Your task to perform on an android device: change notification settings in the gmail app Image 0: 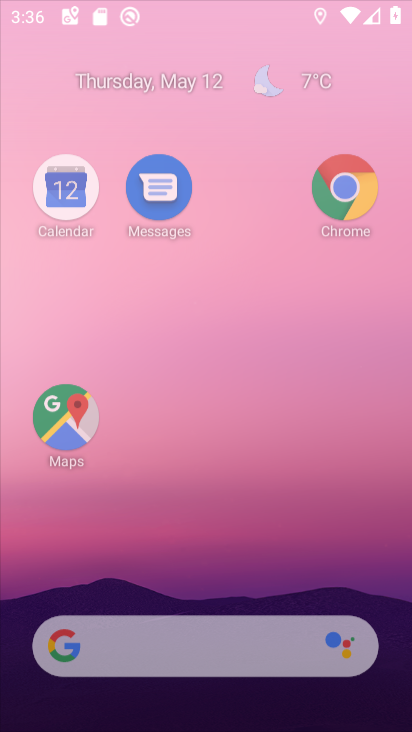
Step 0: click (167, 268)
Your task to perform on an android device: change notification settings in the gmail app Image 1: 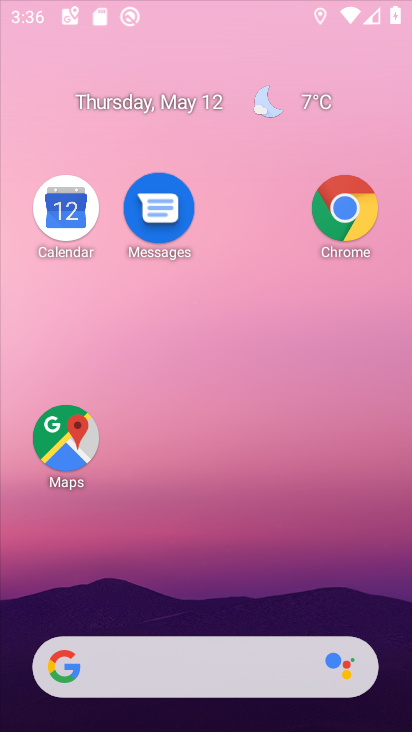
Step 1: drag from (160, 573) to (185, 109)
Your task to perform on an android device: change notification settings in the gmail app Image 2: 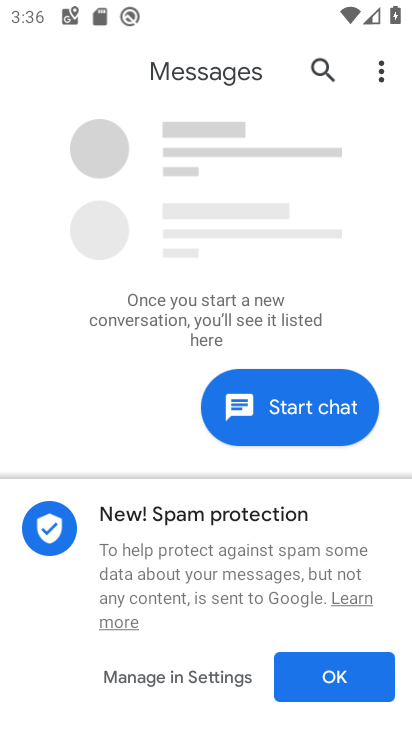
Step 2: click (328, 690)
Your task to perform on an android device: change notification settings in the gmail app Image 3: 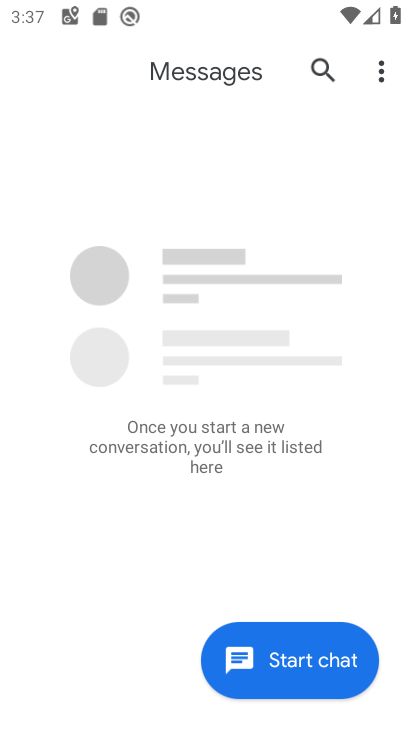
Step 3: drag from (247, 599) to (250, 130)
Your task to perform on an android device: change notification settings in the gmail app Image 4: 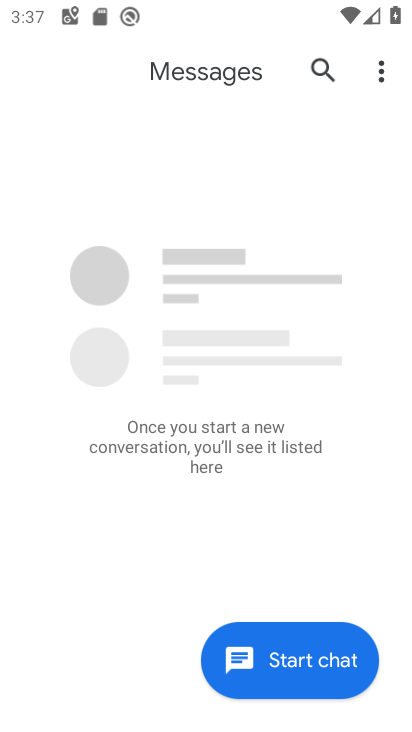
Step 4: press home button
Your task to perform on an android device: change notification settings in the gmail app Image 5: 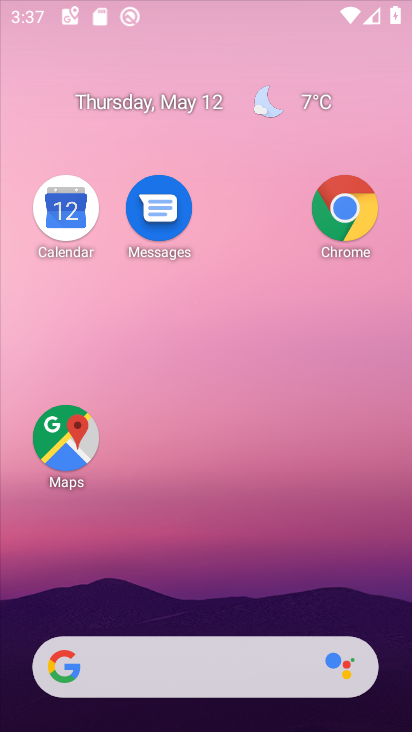
Step 5: drag from (196, 601) to (303, 167)
Your task to perform on an android device: change notification settings in the gmail app Image 6: 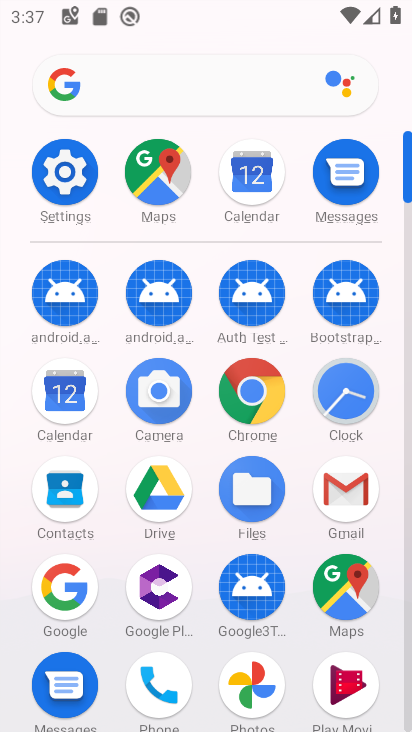
Step 6: click (342, 504)
Your task to perform on an android device: change notification settings in the gmail app Image 7: 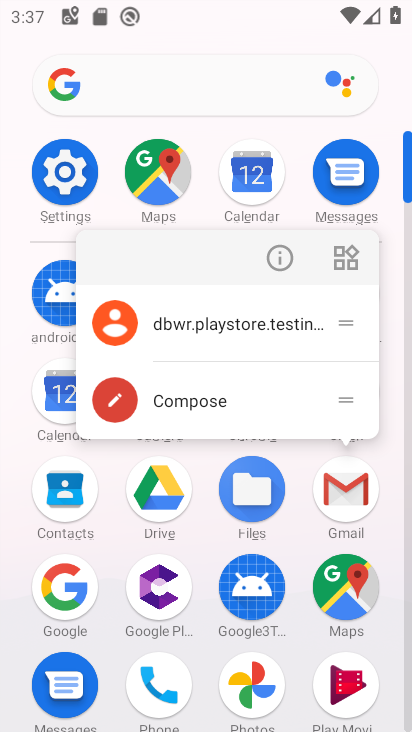
Step 7: click (224, 321)
Your task to perform on an android device: change notification settings in the gmail app Image 8: 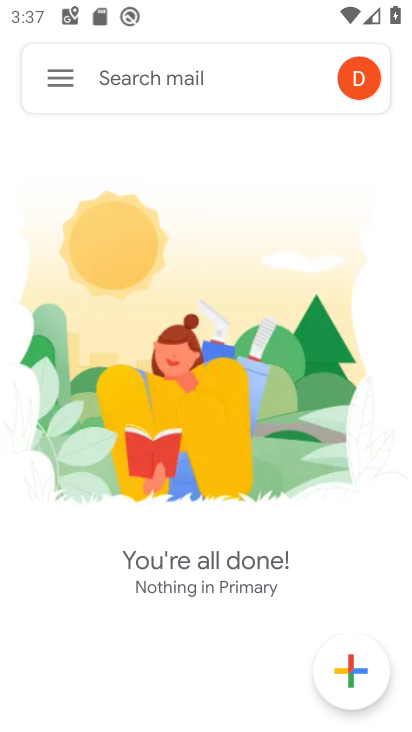
Step 8: click (36, 96)
Your task to perform on an android device: change notification settings in the gmail app Image 9: 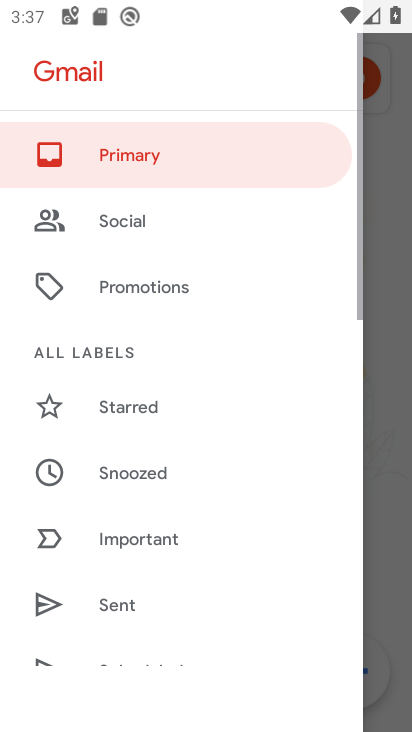
Step 9: drag from (114, 585) to (244, 20)
Your task to perform on an android device: change notification settings in the gmail app Image 10: 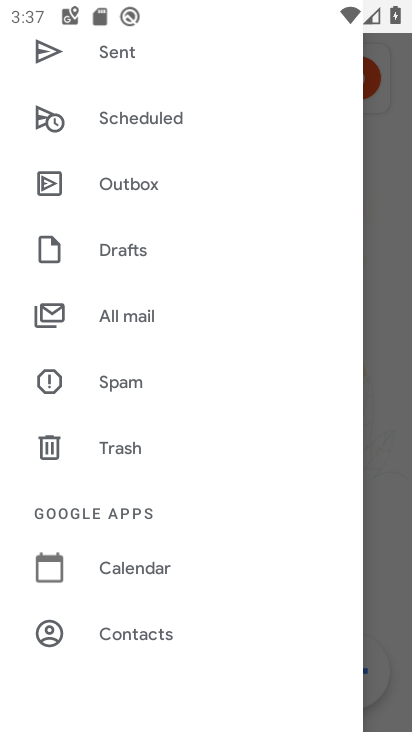
Step 10: drag from (74, 584) to (214, 13)
Your task to perform on an android device: change notification settings in the gmail app Image 11: 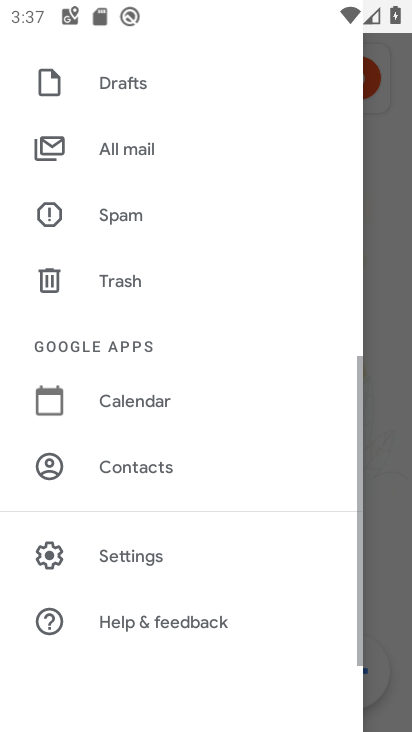
Step 11: click (167, 552)
Your task to perform on an android device: change notification settings in the gmail app Image 12: 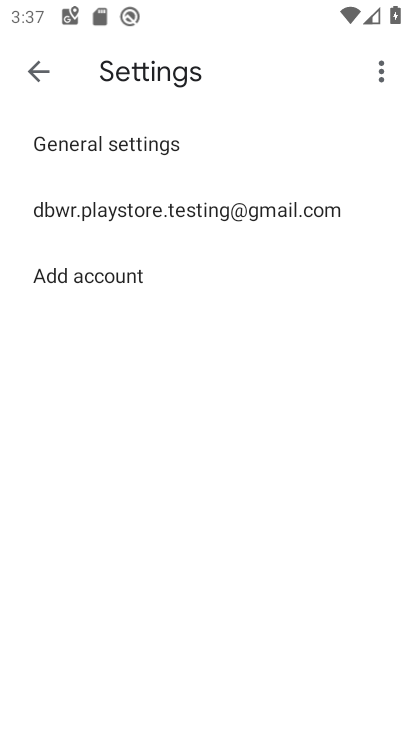
Step 12: click (160, 210)
Your task to perform on an android device: change notification settings in the gmail app Image 13: 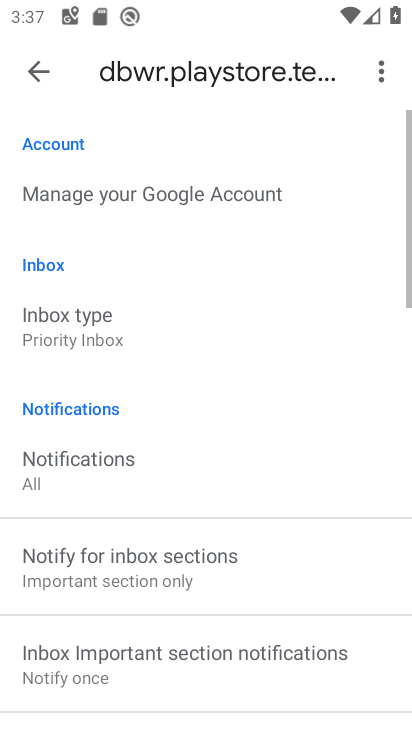
Step 13: drag from (142, 583) to (248, 224)
Your task to perform on an android device: change notification settings in the gmail app Image 14: 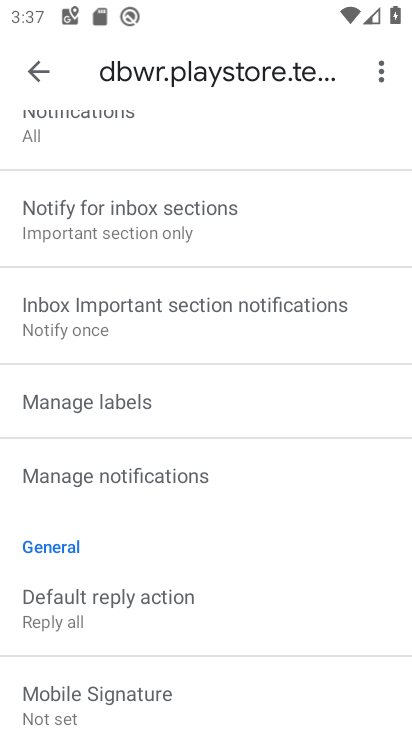
Step 14: click (119, 486)
Your task to perform on an android device: change notification settings in the gmail app Image 15: 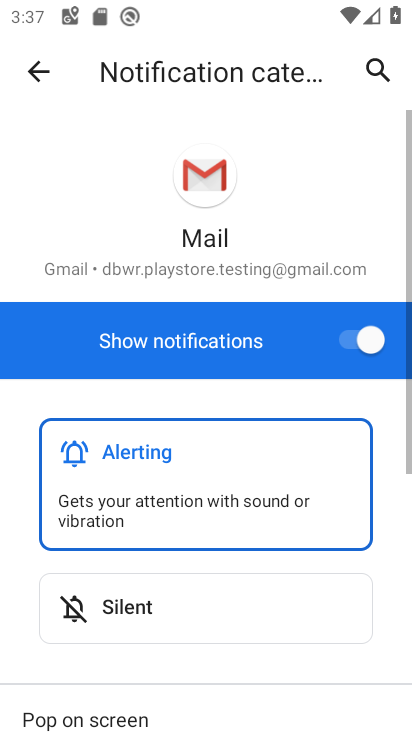
Step 15: drag from (193, 564) to (235, 184)
Your task to perform on an android device: change notification settings in the gmail app Image 16: 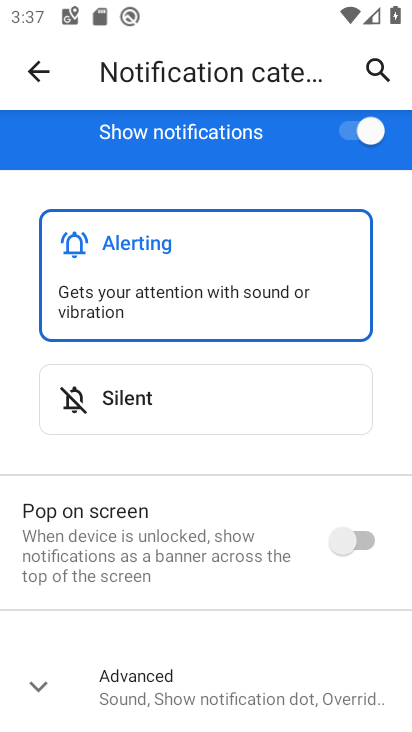
Step 16: click (351, 144)
Your task to perform on an android device: change notification settings in the gmail app Image 17: 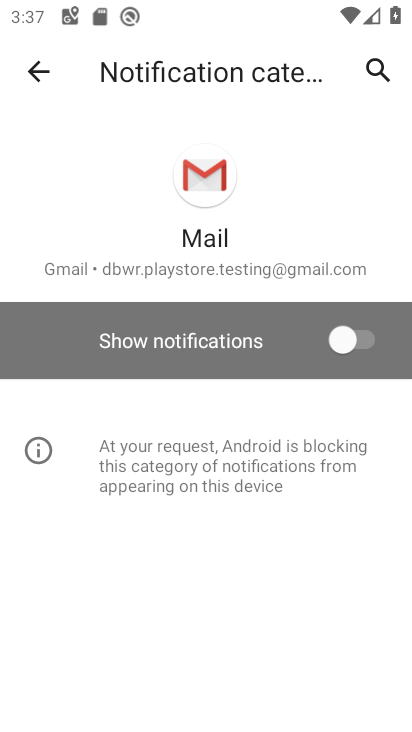
Step 17: task complete